Your task to perform on an android device: turn on bluetooth scan Image 0: 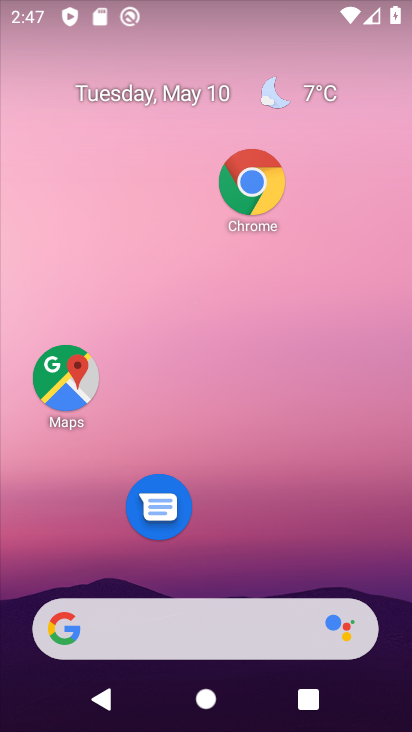
Step 0: drag from (284, 539) to (248, 45)
Your task to perform on an android device: turn on bluetooth scan Image 1: 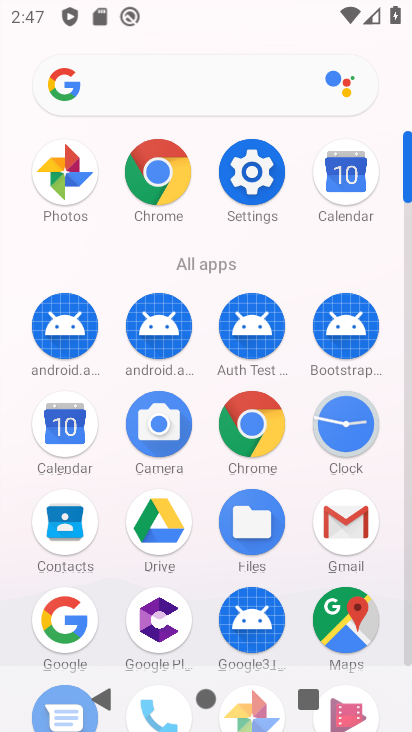
Step 1: click (266, 163)
Your task to perform on an android device: turn on bluetooth scan Image 2: 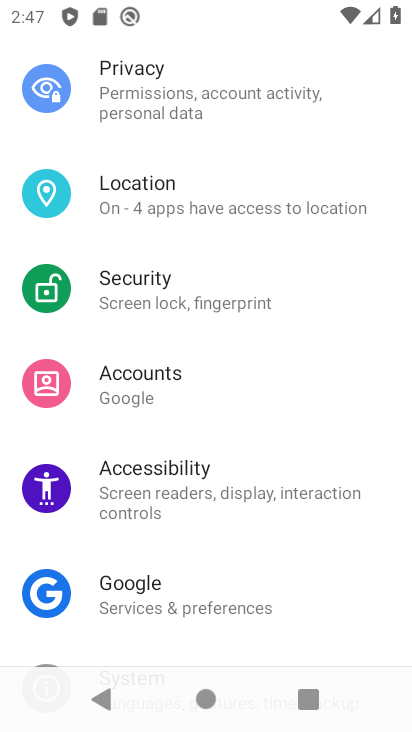
Step 2: drag from (260, 565) to (216, 351)
Your task to perform on an android device: turn on bluetooth scan Image 3: 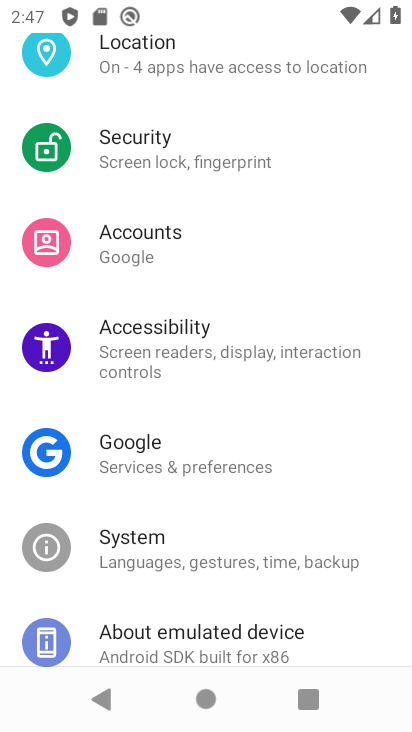
Step 3: click (239, 581)
Your task to perform on an android device: turn on bluetooth scan Image 4: 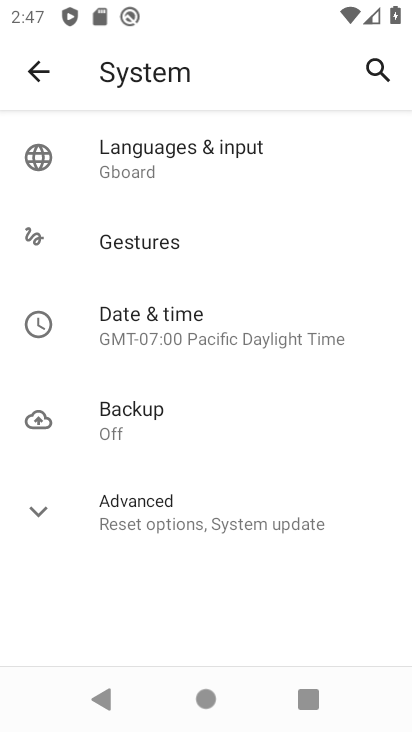
Step 4: click (43, 81)
Your task to perform on an android device: turn on bluetooth scan Image 5: 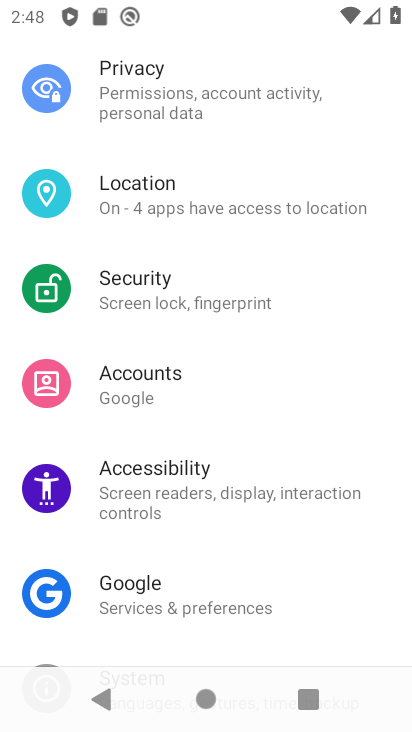
Step 5: click (124, 182)
Your task to perform on an android device: turn on bluetooth scan Image 6: 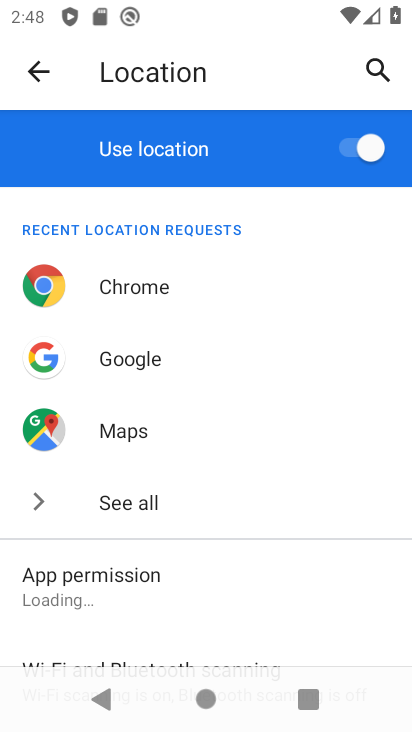
Step 6: drag from (188, 493) to (125, 207)
Your task to perform on an android device: turn on bluetooth scan Image 7: 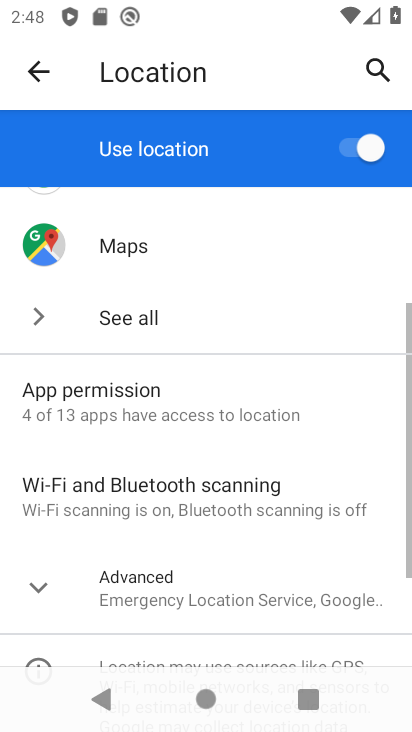
Step 7: click (235, 500)
Your task to perform on an android device: turn on bluetooth scan Image 8: 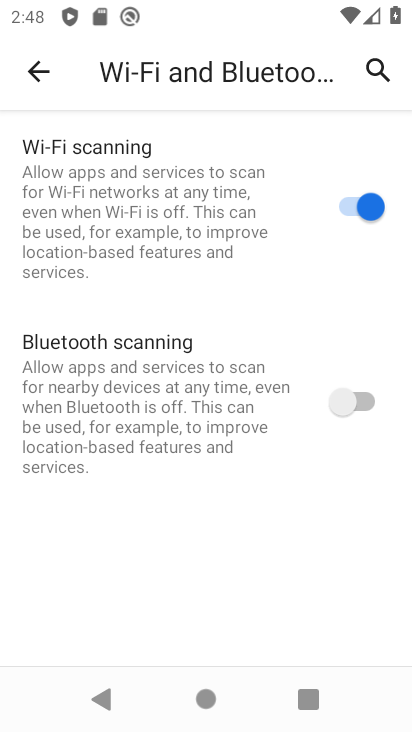
Step 8: click (315, 431)
Your task to perform on an android device: turn on bluetooth scan Image 9: 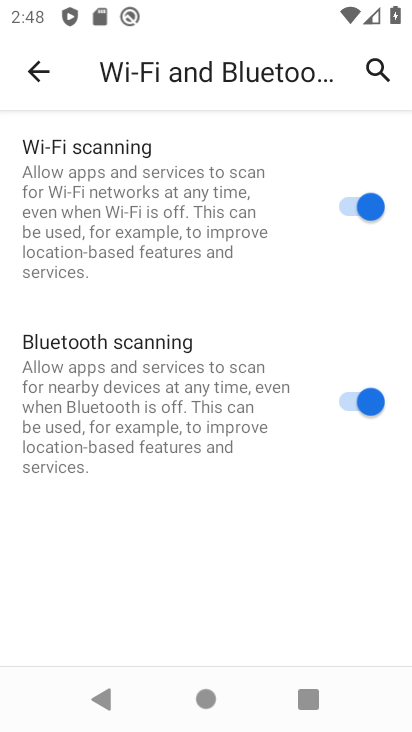
Step 9: task complete